Your task to perform on an android device: turn off javascript in the chrome app Image 0: 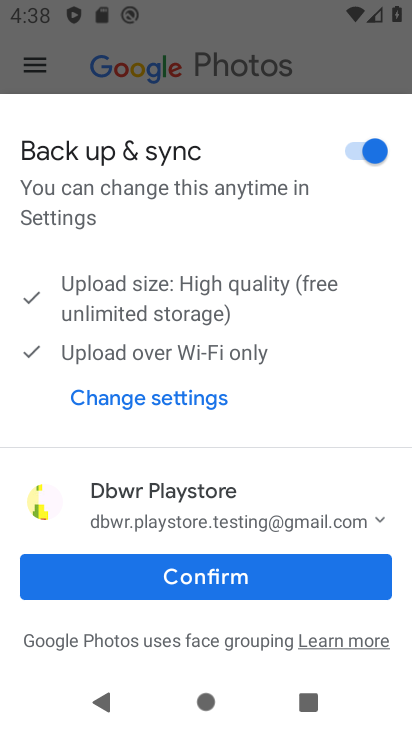
Step 0: press home button
Your task to perform on an android device: turn off javascript in the chrome app Image 1: 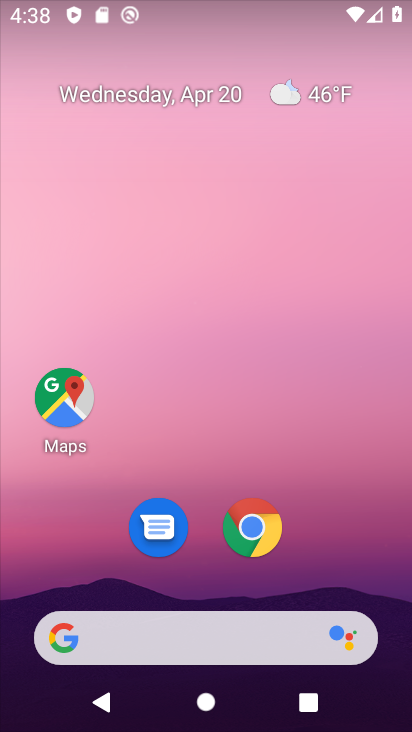
Step 1: click (254, 523)
Your task to perform on an android device: turn off javascript in the chrome app Image 2: 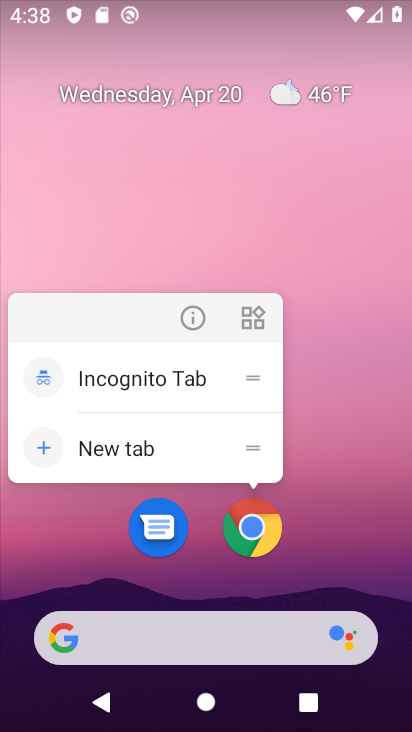
Step 2: click (249, 534)
Your task to perform on an android device: turn off javascript in the chrome app Image 3: 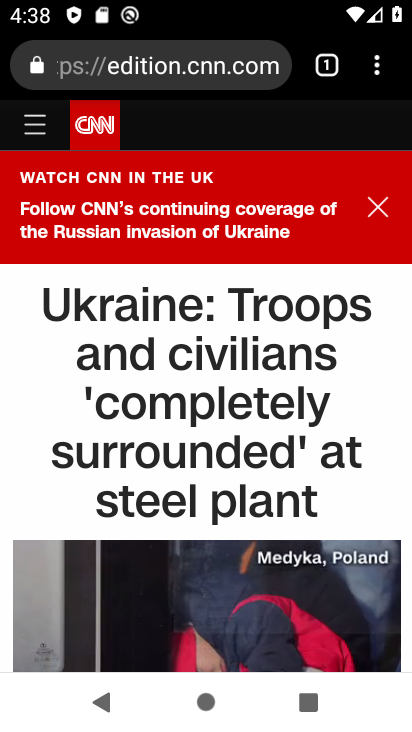
Step 3: click (373, 68)
Your task to perform on an android device: turn off javascript in the chrome app Image 4: 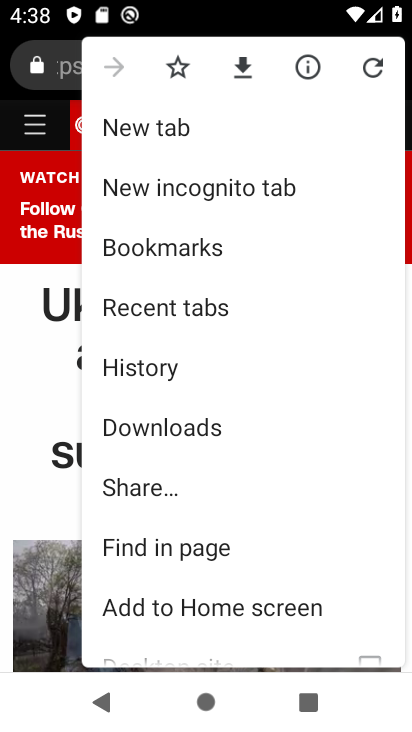
Step 4: drag from (251, 576) to (209, 219)
Your task to perform on an android device: turn off javascript in the chrome app Image 5: 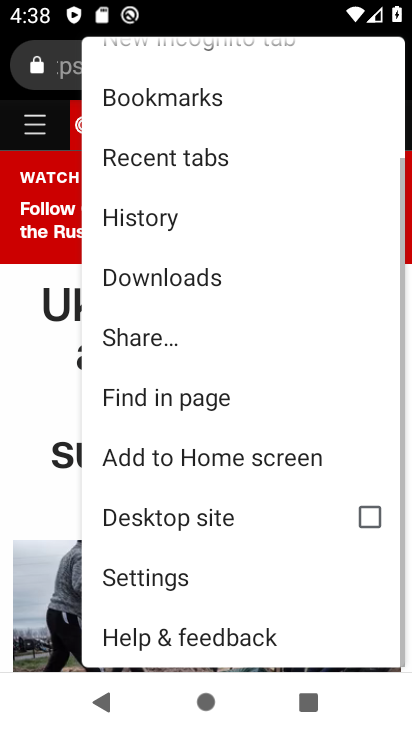
Step 5: click (207, 578)
Your task to perform on an android device: turn off javascript in the chrome app Image 6: 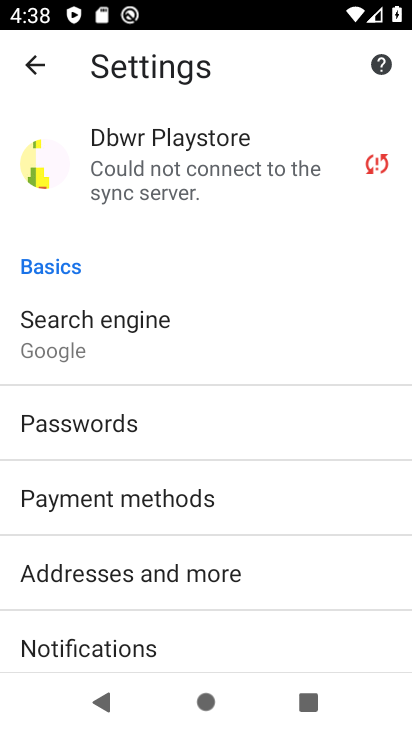
Step 6: drag from (222, 610) to (212, 154)
Your task to perform on an android device: turn off javascript in the chrome app Image 7: 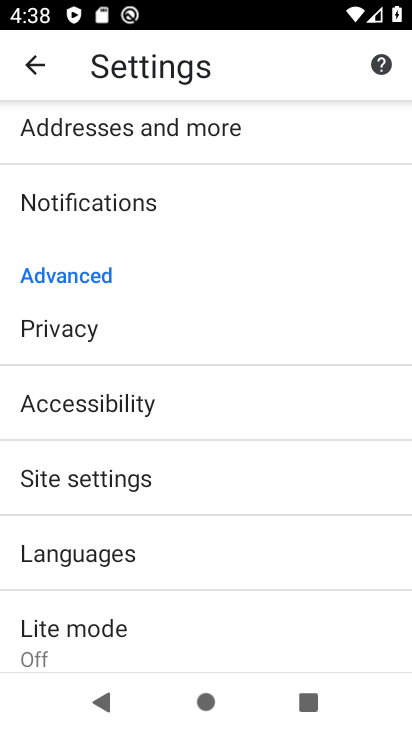
Step 7: click (120, 469)
Your task to perform on an android device: turn off javascript in the chrome app Image 8: 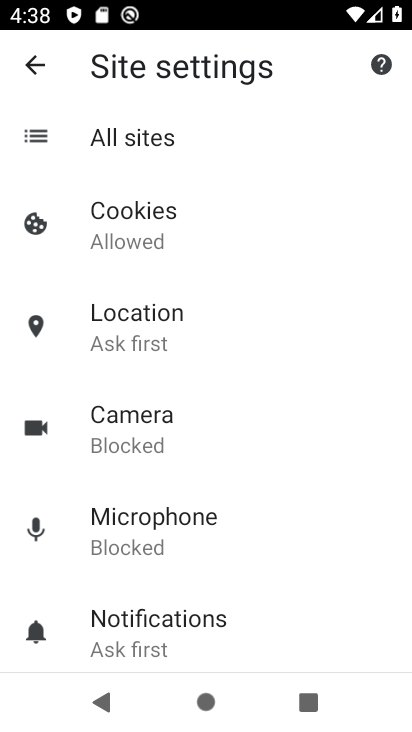
Step 8: drag from (258, 548) to (253, 139)
Your task to perform on an android device: turn off javascript in the chrome app Image 9: 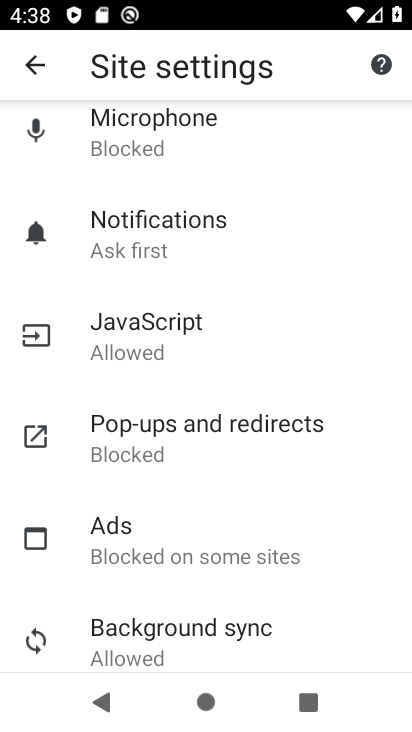
Step 9: click (200, 345)
Your task to perform on an android device: turn off javascript in the chrome app Image 10: 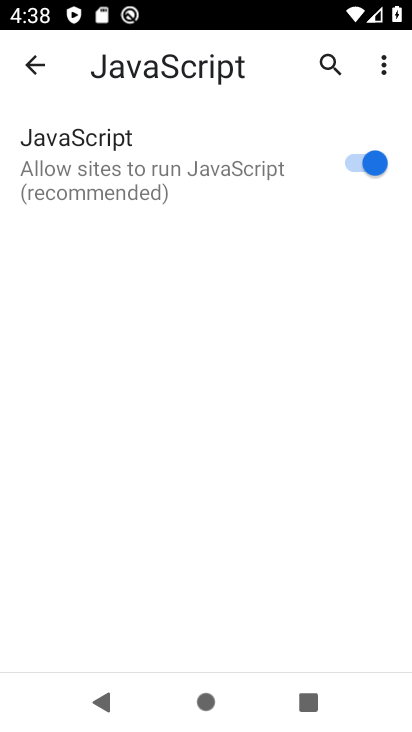
Step 10: click (368, 149)
Your task to perform on an android device: turn off javascript in the chrome app Image 11: 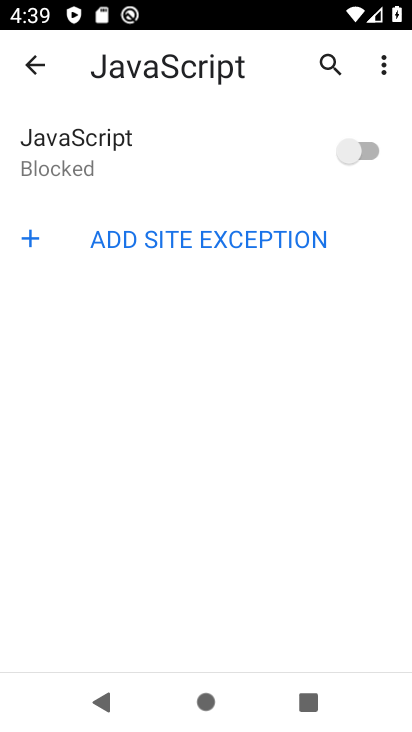
Step 11: task complete